Your task to perform on an android device: change the clock display to analog Image 0: 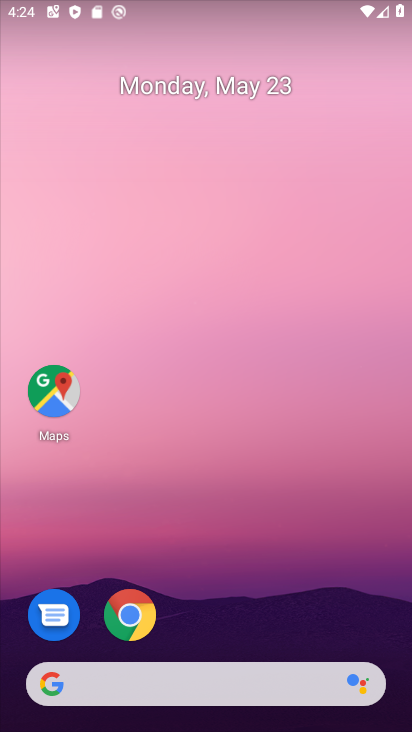
Step 0: drag from (243, 585) to (265, 56)
Your task to perform on an android device: change the clock display to analog Image 1: 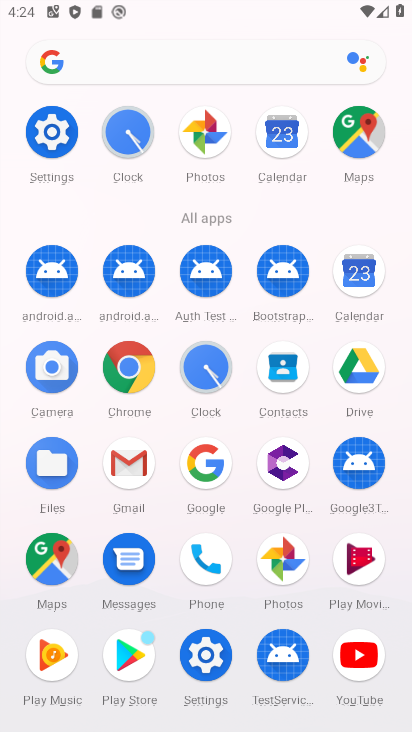
Step 1: click (125, 134)
Your task to perform on an android device: change the clock display to analog Image 2: 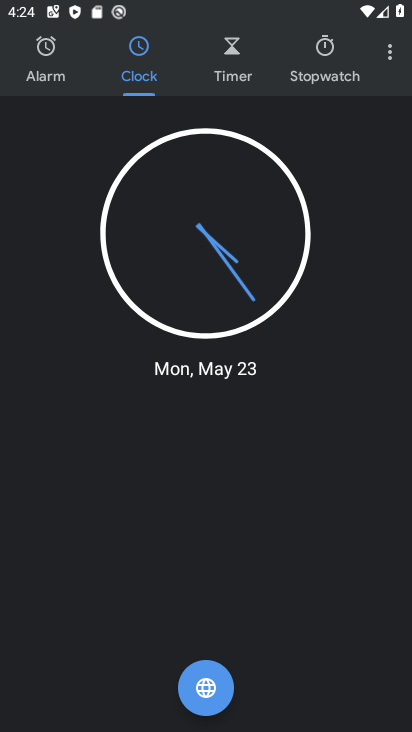
Step 2: task complete